Your task to perform on an android device: Open notification settings Image 0: 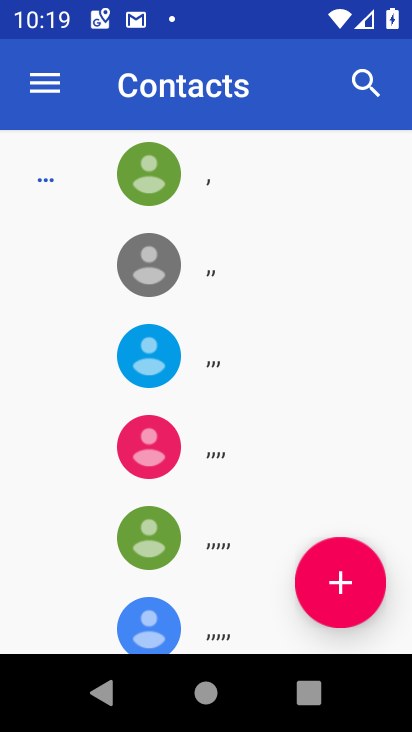
Step 0: press back button
Your task to perform on an android device: Open notification settings Image 1: 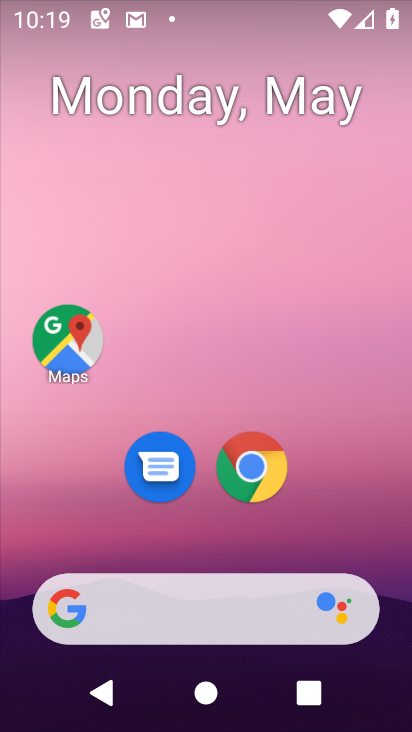
Step 1: drag from (399, 642) to (336, 84)
Your task to perform on an android device: Open notification settings Image 2: 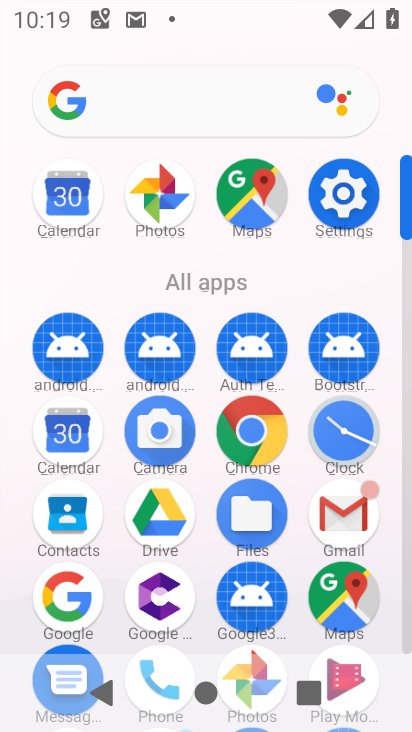
Step 2: click (338, 188)
Your task to perform on an android device: Open notification settings Image 3: 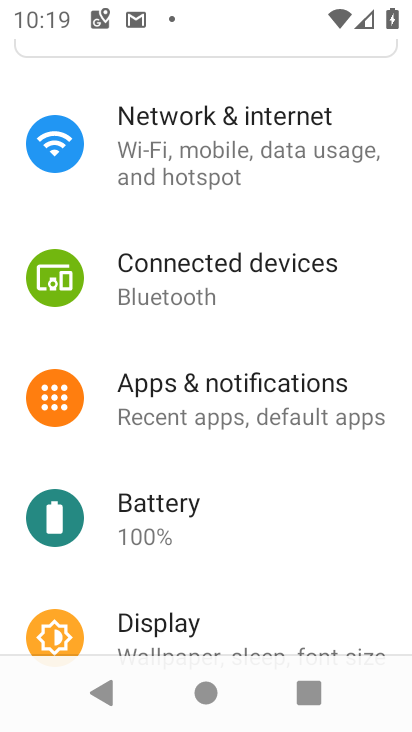
Step 3: drag from (310, 177) to (300, 575)
Your task to perform on an android device: Open notification settings Image 4: 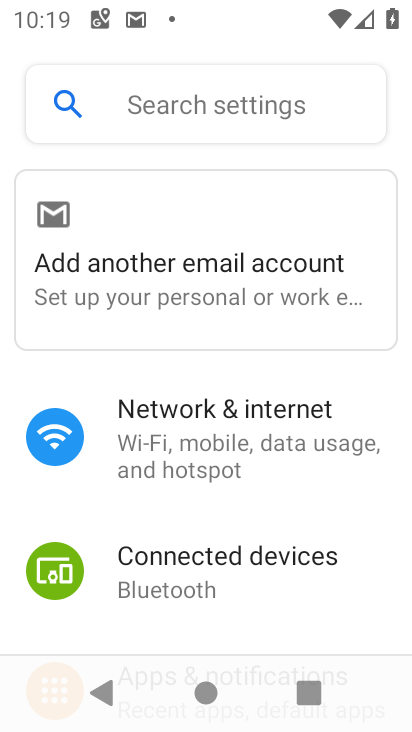
Step 4: click (198, 433)
Your task to perform on an android device: Open notification settings Image 5: 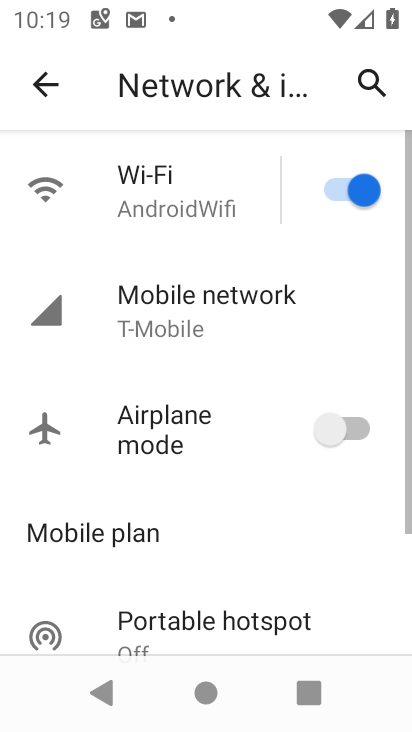
Step 5: click (47, 89)
Your task to perform on an android device: Open notification settings Image 6: 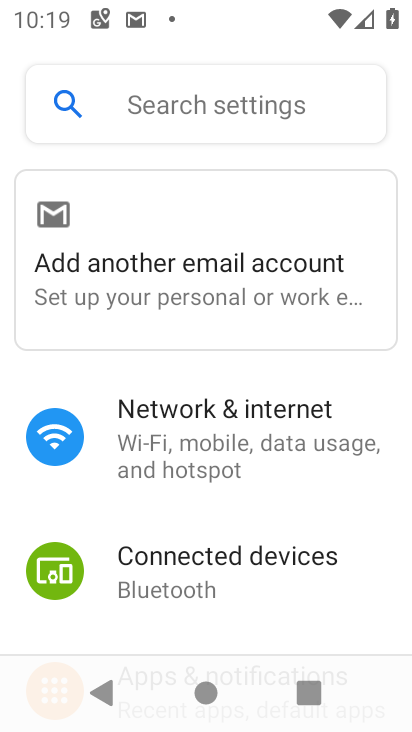
Step 6: drag from (210, 623) to (221, 329)
Your task to perform on an android device: Open notification settings Image 7: 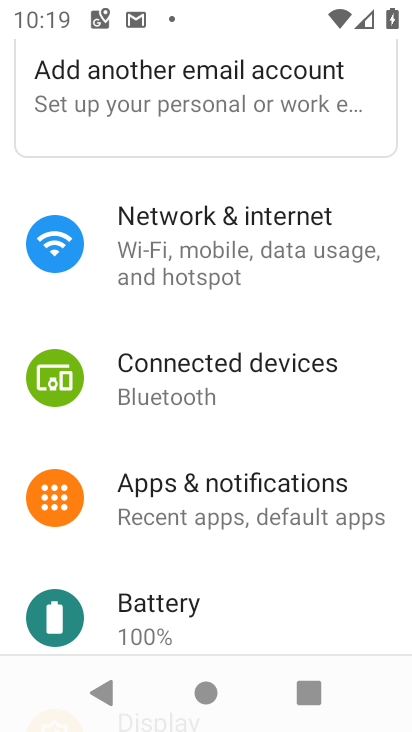
Step 7: click (205, 500)
Your task to perform on an android device: Open notification settings Image 8: 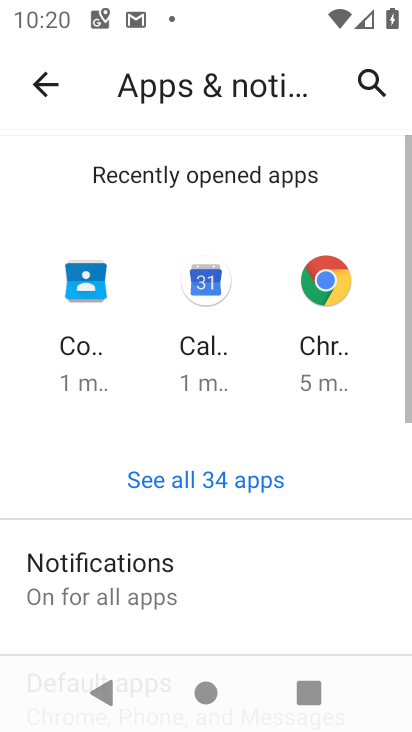
Step 8: click (111, 578)
Your task to perform on an android device: Open notification settings Image 9: 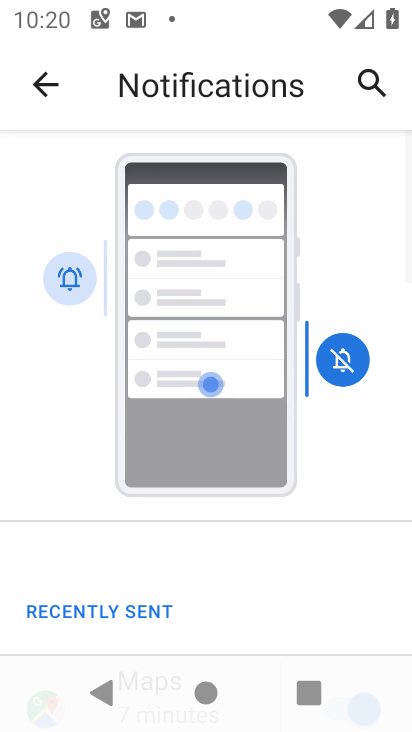
Step 9: drag from (268, 619) to (250, 156)
Your task to perform on an android device: Open notification settings Image 10: 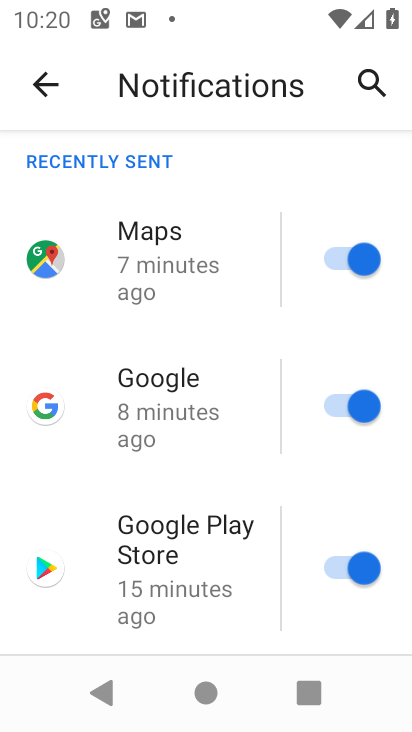
Step 10: drag from (232, 623) to (228, 232)
Your task to perform on an android device: Open notification settings Image 11: 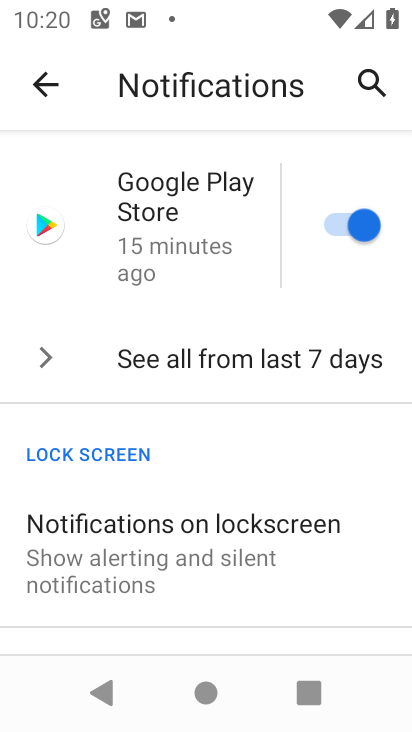
Step 11: click (108, 543)
Your task to perform on an android device: Open notification settings Image 12: 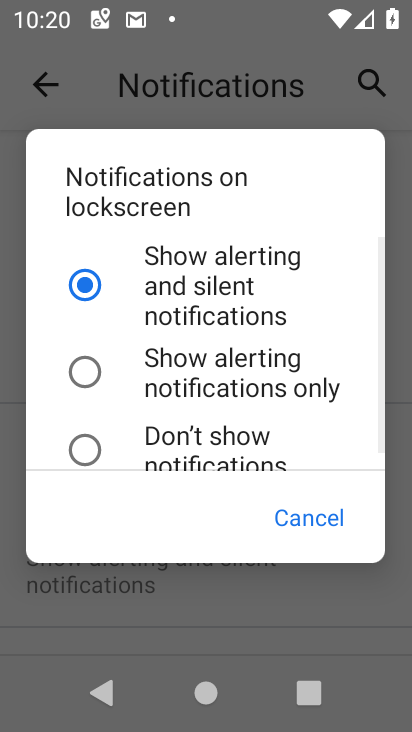
Step 12: click (45, 84)
Your task to perform on an android device: Open notification settings Image 13: 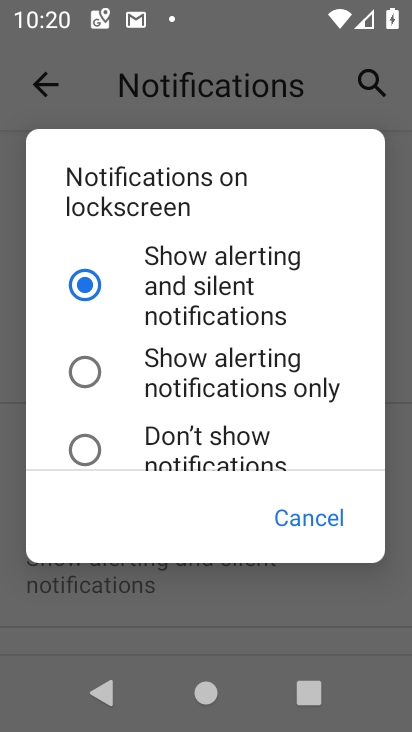
Step 13: click (276, 525)
Your task to perform on an android device: Open notification settings Image 14: 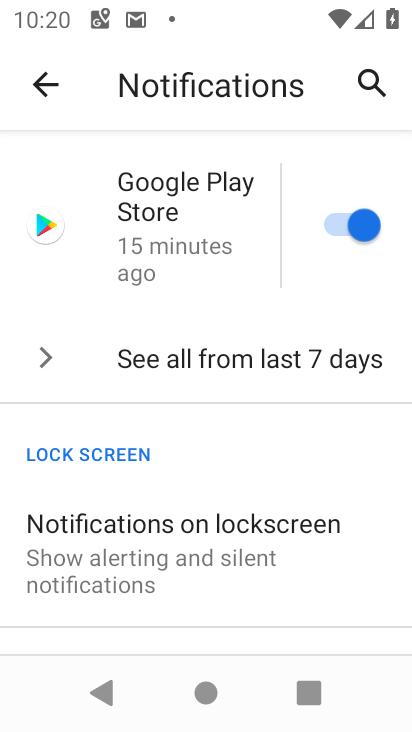
Step 14: drag from (169, 598) to (188, 258)
Your task to perform on an android device: Open notification settings Image 15: 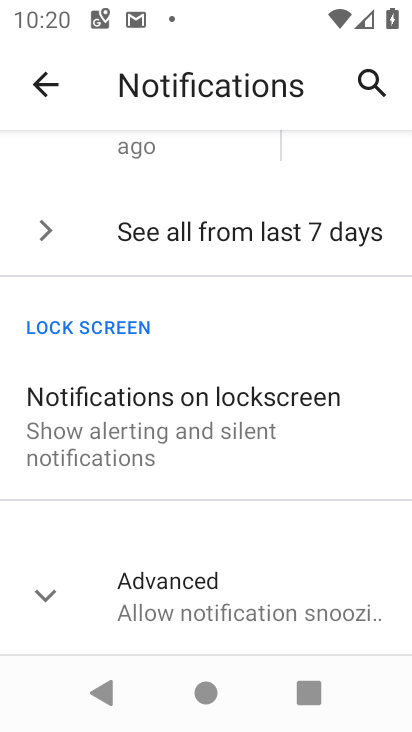
Step 15: click (34, 589)
Your task to perform on an android device: Open notification settings Image 16: 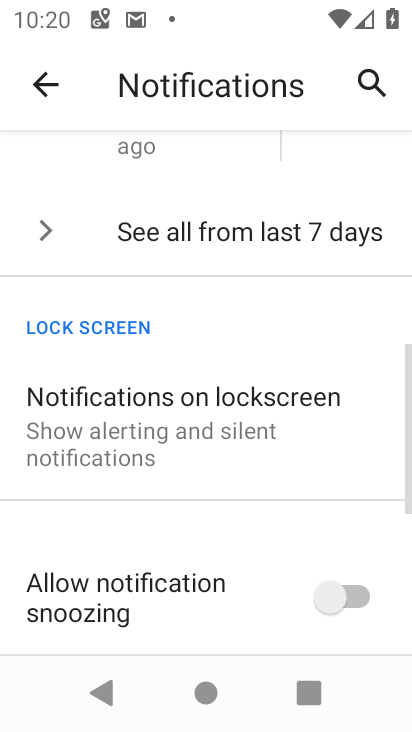
Step 16: task complete